Your task to perform on an android device: Open the web browser Image 0: 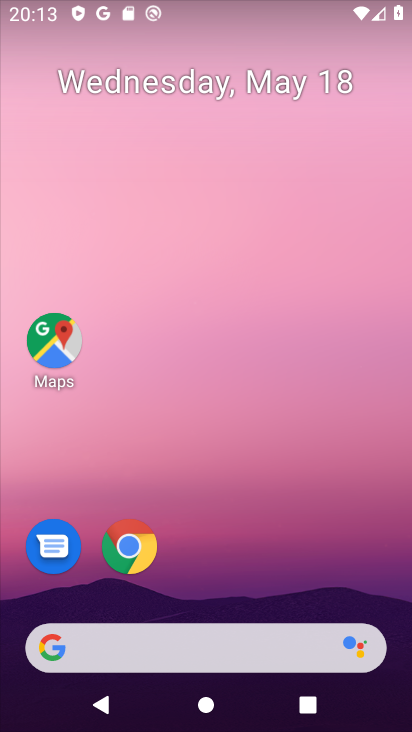
Step 0: click (124, 544)
Your task to perform on an android device: Open the web browser Image 1: 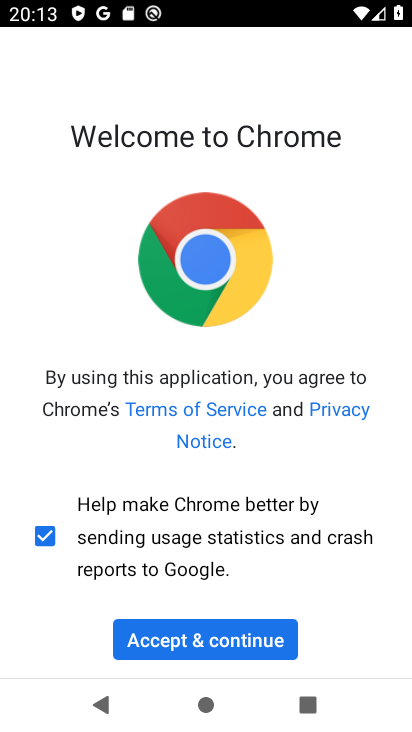
Step 1: click (204, 640)
Your task to perform on an android device: Open the web browser Image 2: 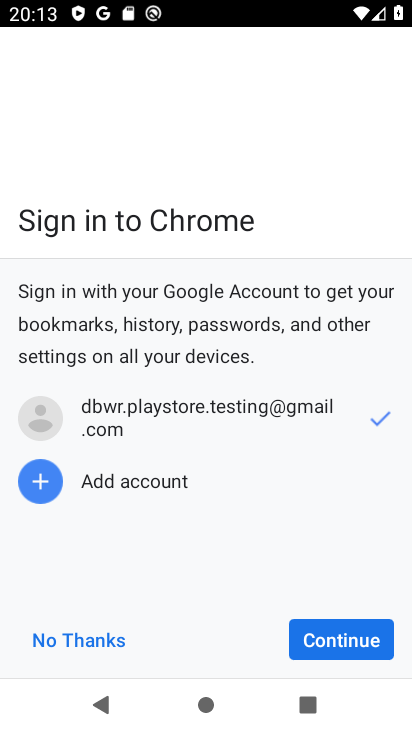
Step 2: click (349, 647)
Your task to perform on an android device: Open the web browser Image 3: 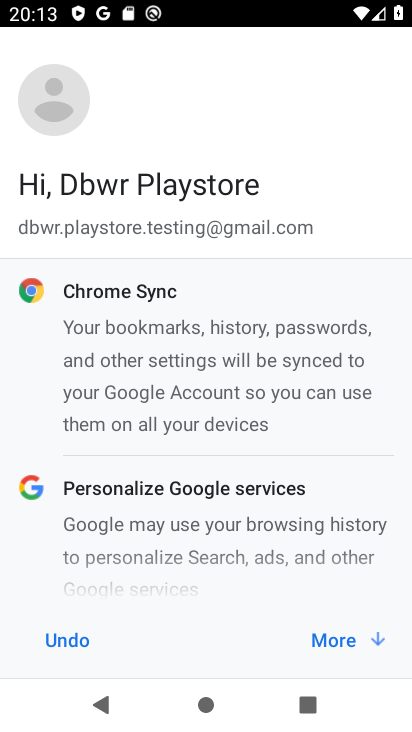
Step 3: task complete